Your task to perform on an android device: Open Yahoo.com Image 0: 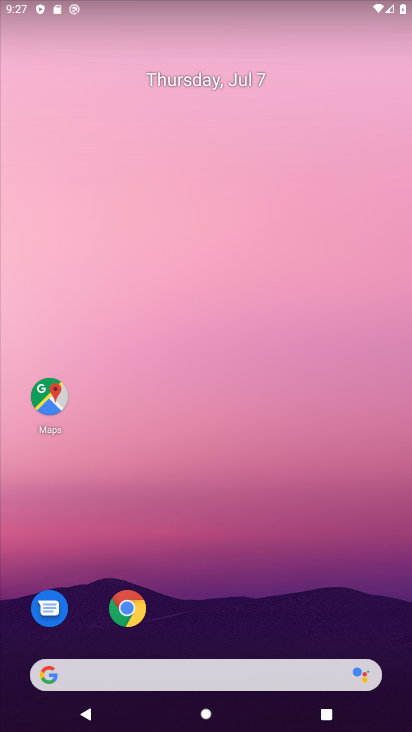
Step 0: drag from (149, 642) to (183, 47)
Your task to perform on an android device: Open Yahoo.com Image 1: 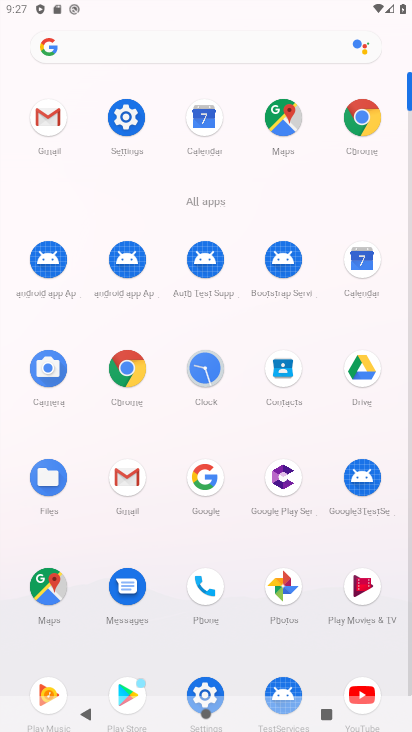
Step 1: click (361, 126)
Your task to perform on an android device: Open Yahoo.com Image 2: 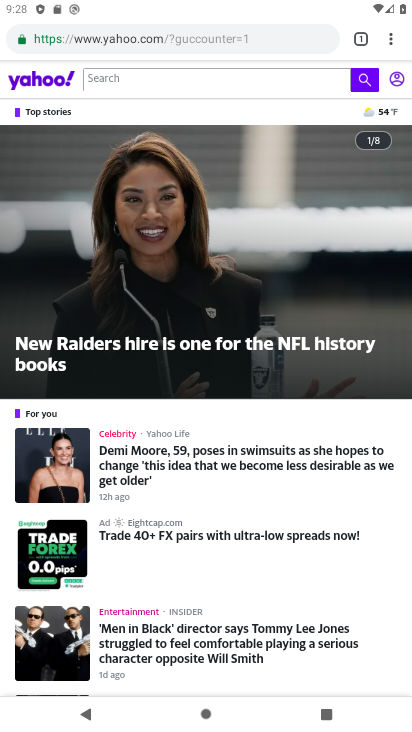
Step 2: task complete